Your task to perform on an android device: check out phone information Image 0: 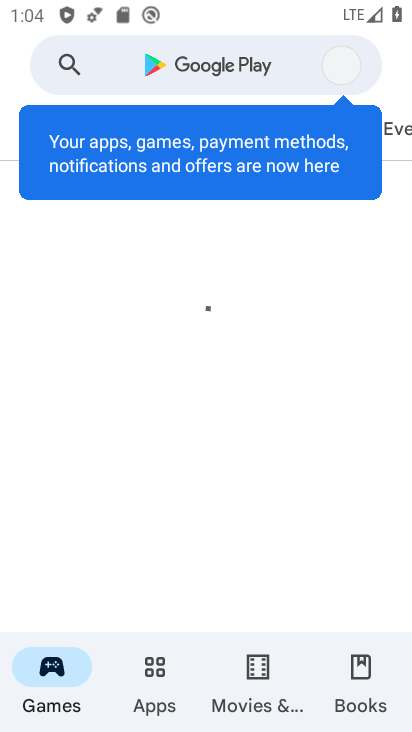
Step 0: press home button
Your task to perform on an android device: check out phone information Image 1: 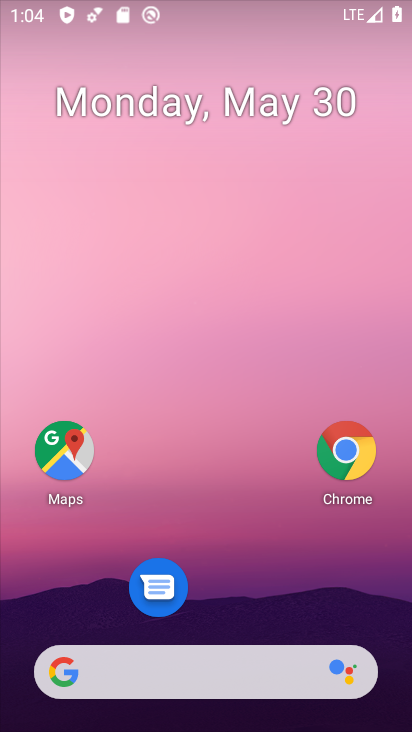
Step 1: drag from (243, 602) to (249, 104)
Your task to perform on an android device: check out phone information Image 2: 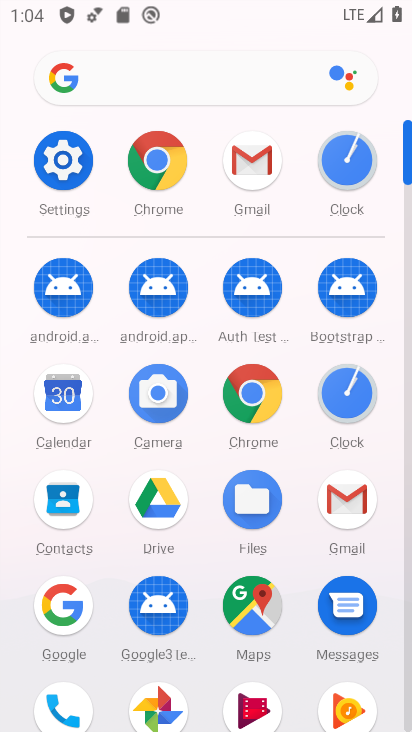
Step 2: click (64, 150)
Your task to perform on an android device: check out phone information Image 3: 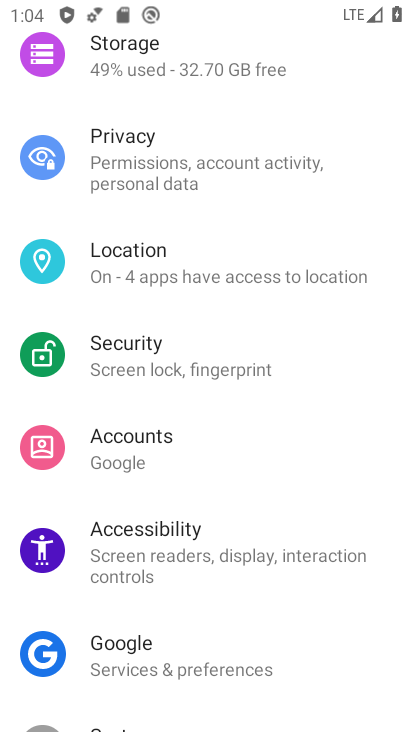
Step 3: drag from (247, 675) to (207, 52)
Your task to perform on an android device: check out phone information Image 4: 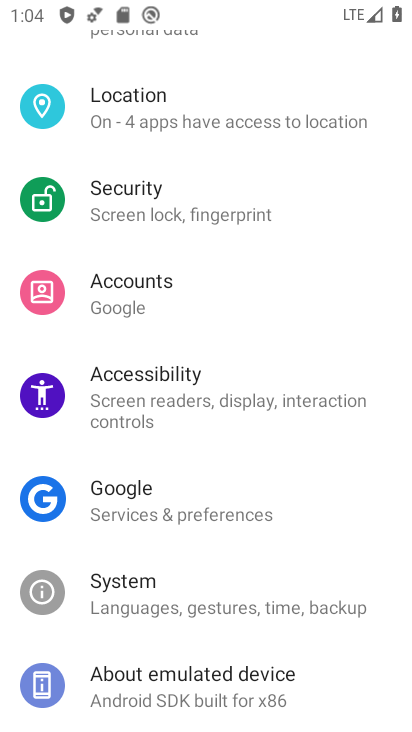
Step 4: click (107, 673)
Your task to perform on an android device: check out phone information Image 5: 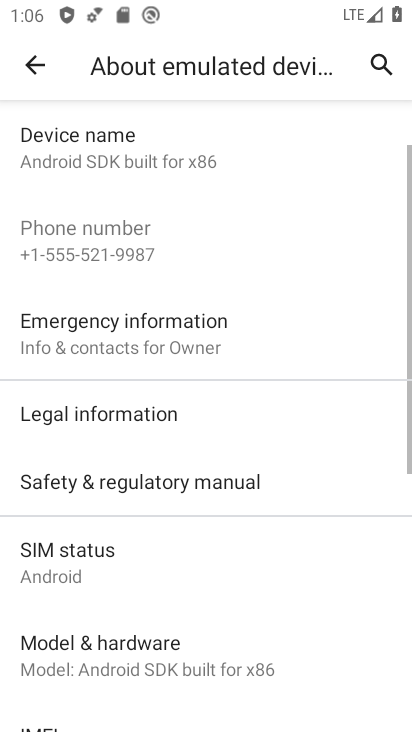
Step 5: task complete